Your task to perform on an android device: When is my next appointment? Image 0: 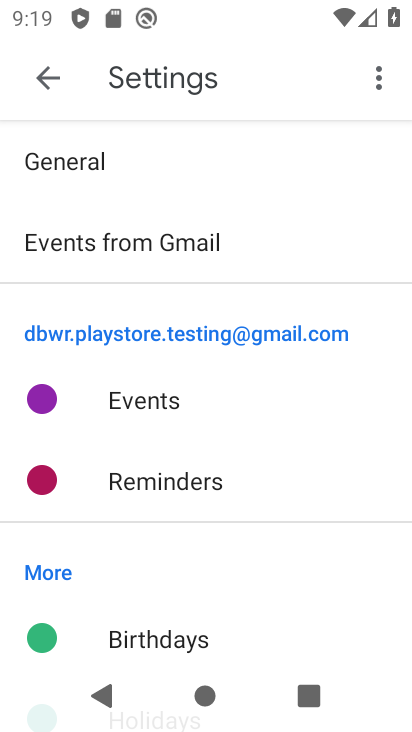
Step 0: press back button
Your task to perform on an android device: When is my next appointment? Image 1: 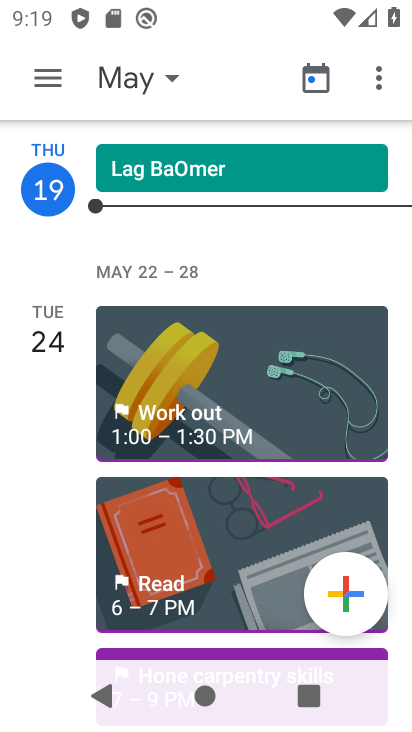
Step 1: press back button
Your task to perform on an android device: When is my next appointment? Image 2: 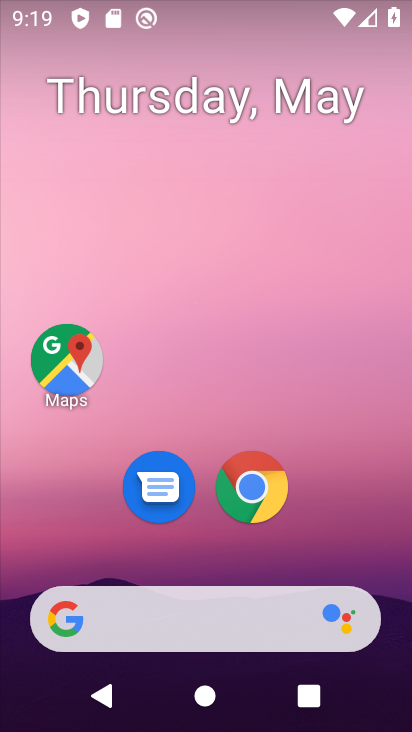
Step 2: drag from (170, 553) to (298, 126)
Your task to perform on an android device: When is my next appointment? Image 3: 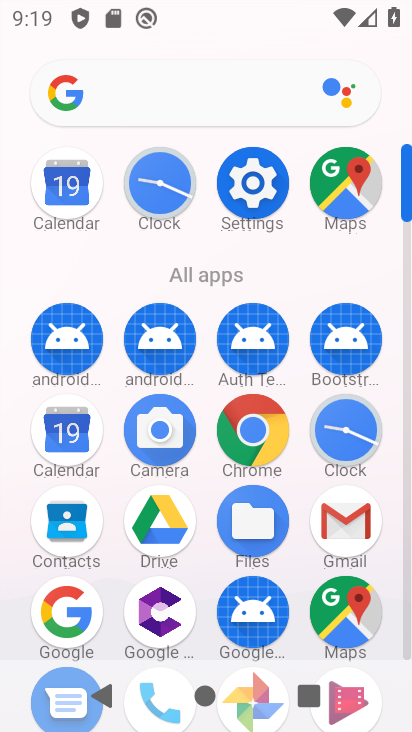
Step 3: click (83, 191)
Your task to perform on an android device: When is my next appointment? Image 4: 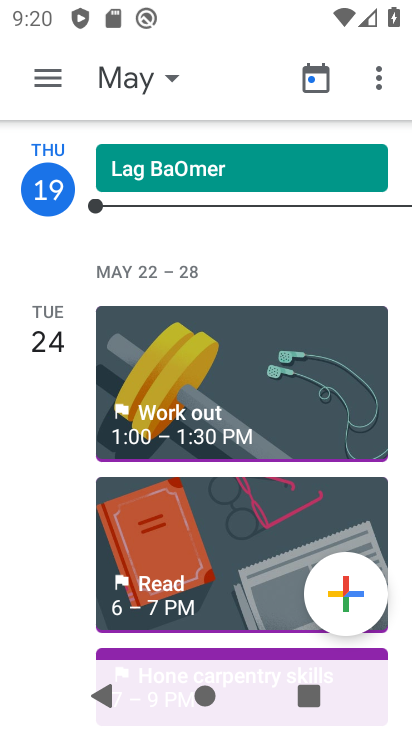
Step 4: task complete